Your task to perform on an android device: Go to Android settings Image 0: 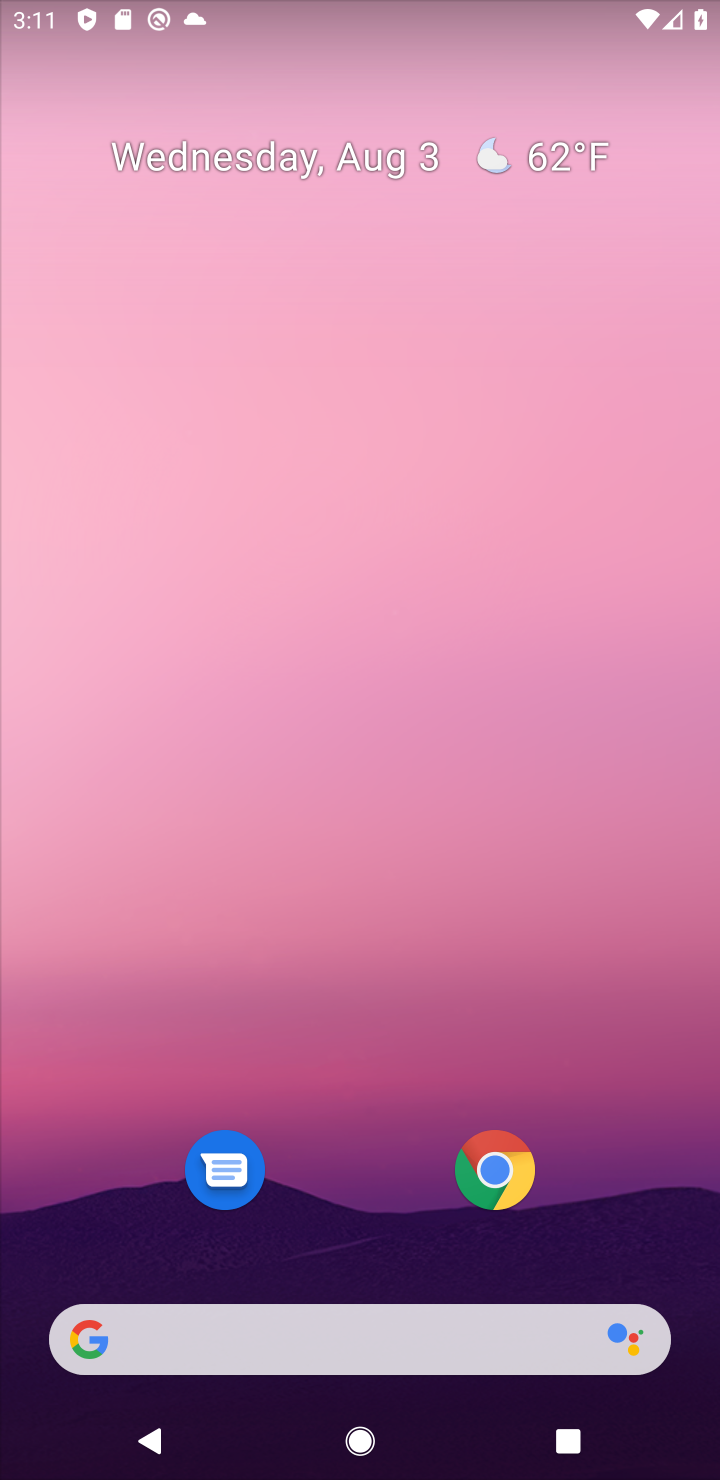
Step 0: drag from (285, 307) to (285, 127)
Your task to perform on an android device: Go to Android settings Image 1: 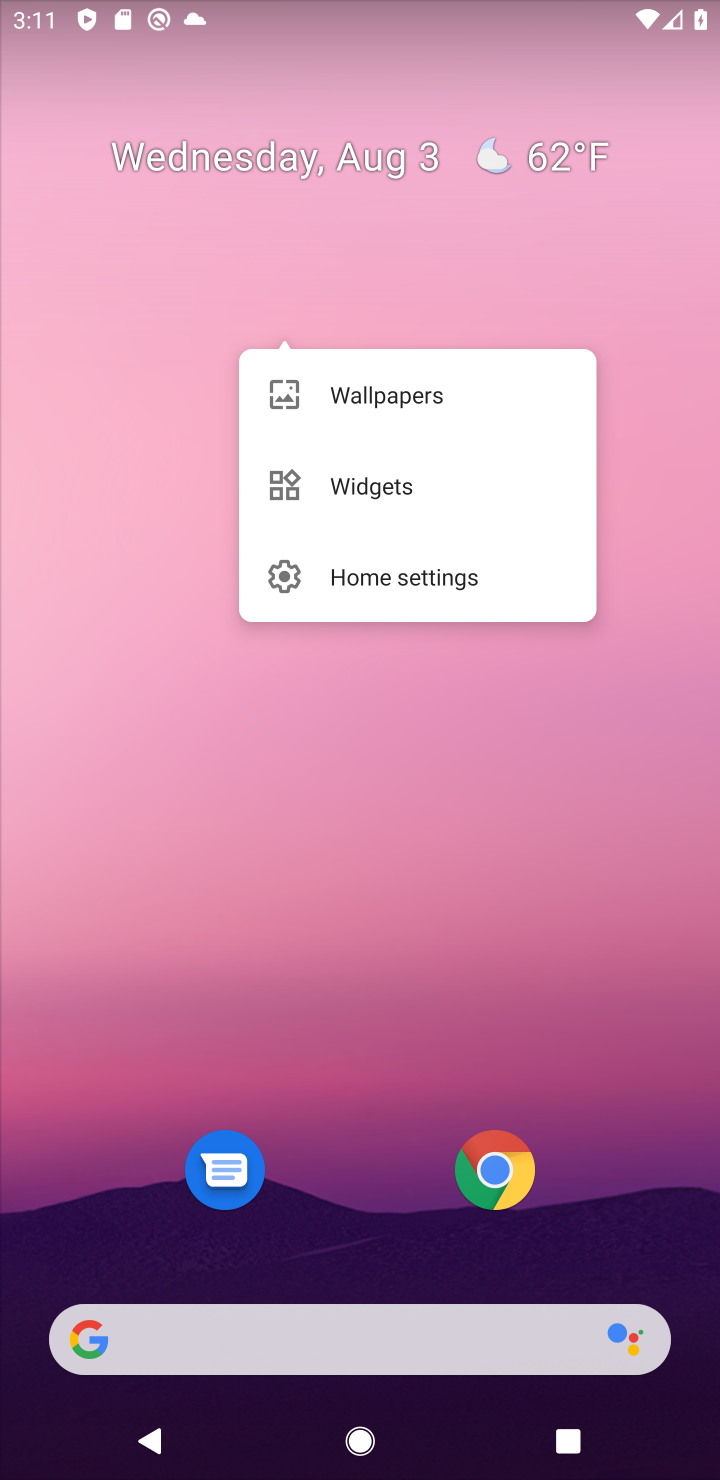
Step 1: drag from (301, 765) to (295, 202)
Your task to perform on an android device: Go to Android settings Image 2: 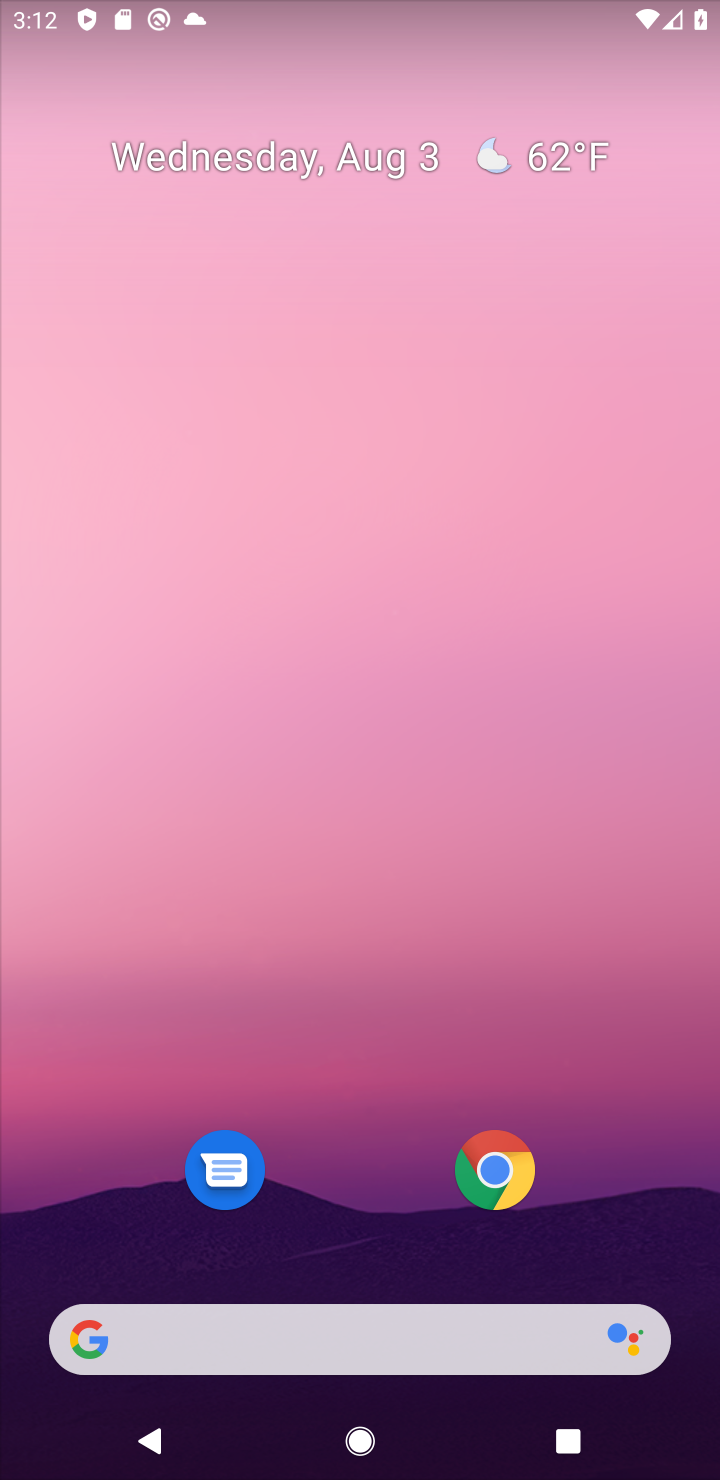
Step 2: drag from (342, 836) to (342, 18)
Your task to perform on an android device: Go to Android settings Image 3: 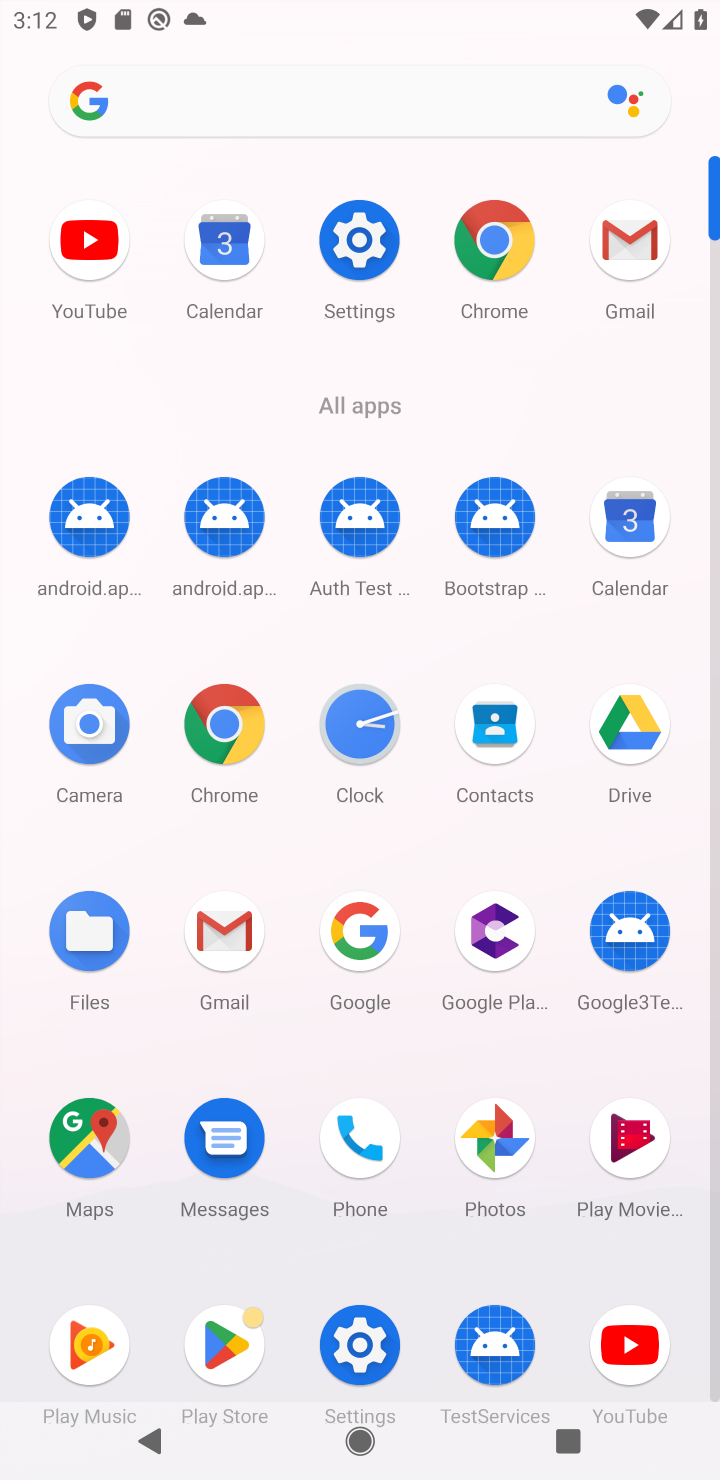
Step 3: click (368, 486)
Your task to perform on an android device: Go to Android settings Image 4: 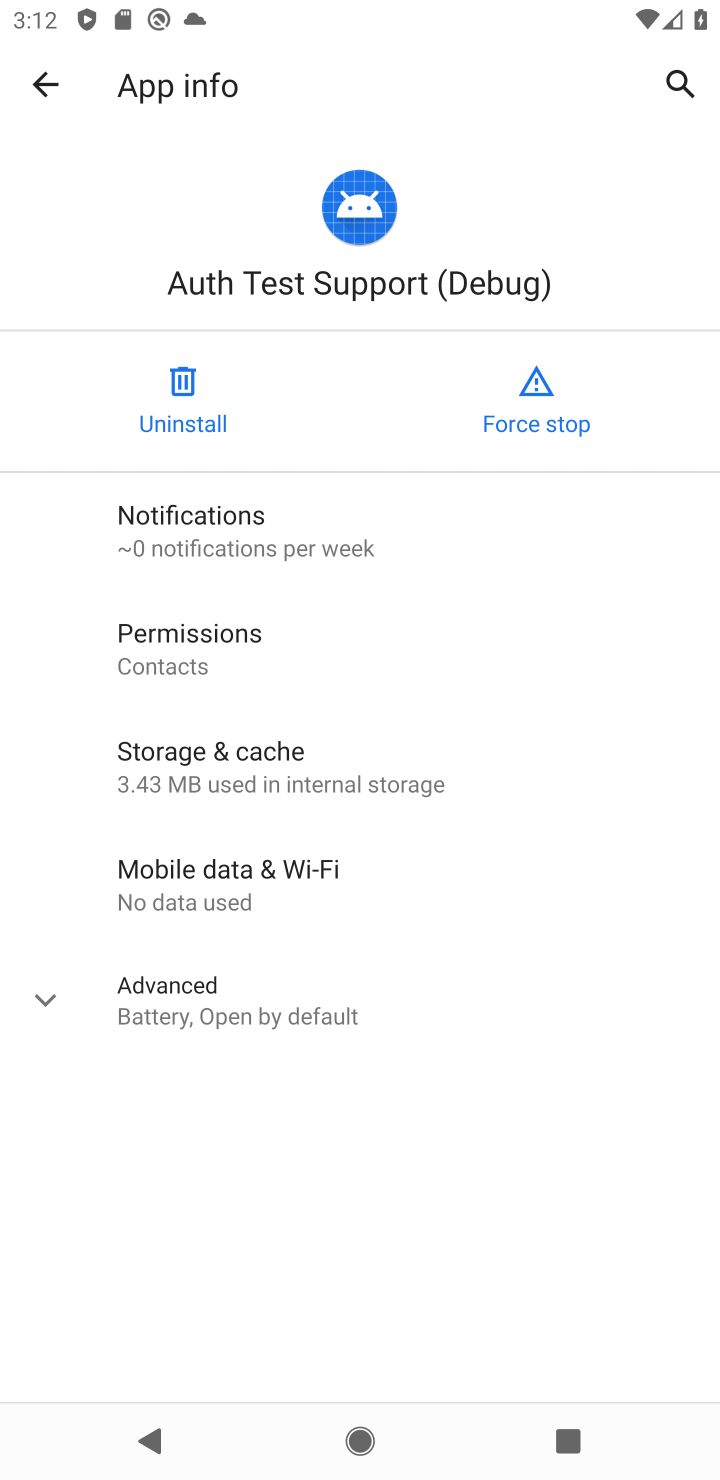
Step 4: click (351, 274)
Your task to perform on an android device: Go to Android settings Image 5: 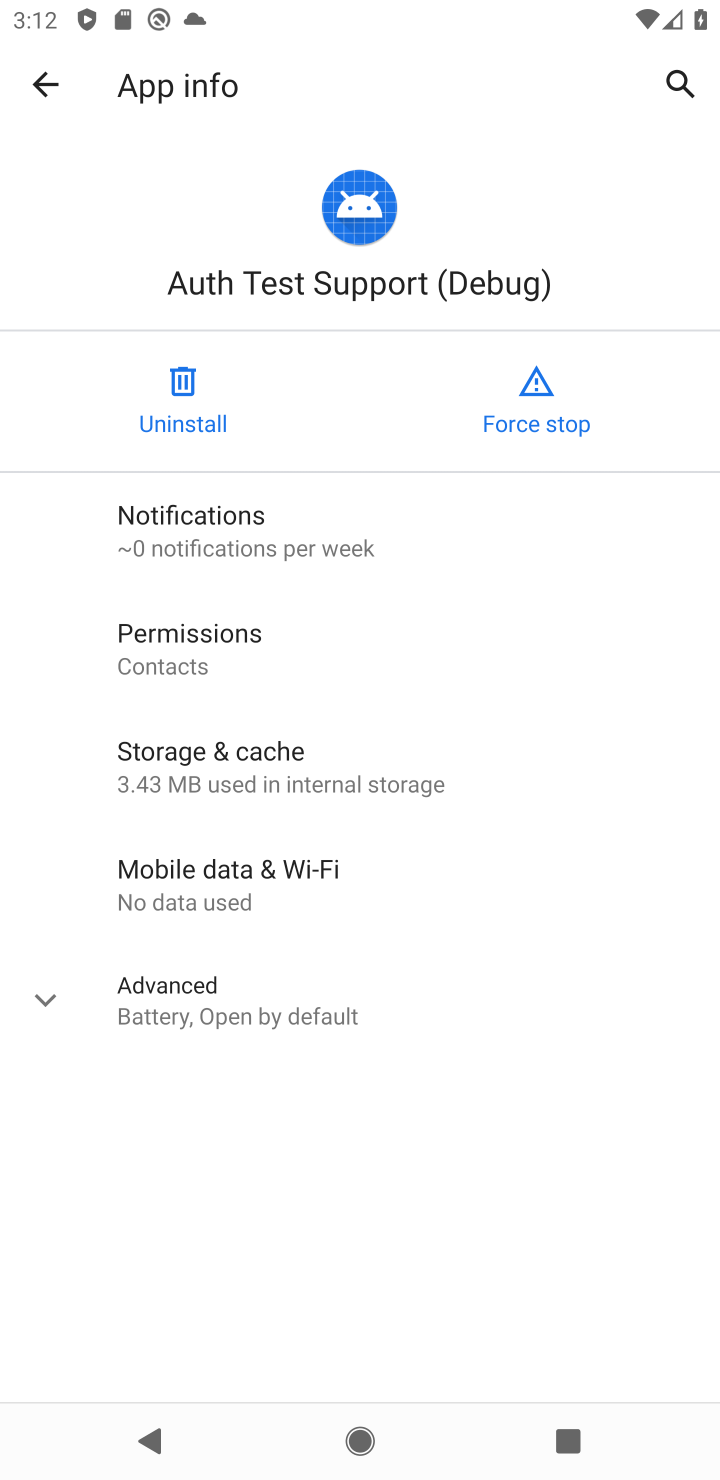
Step 5: click (48, 83)
Your task to perform on an android device: Go to Android settings Image 6: 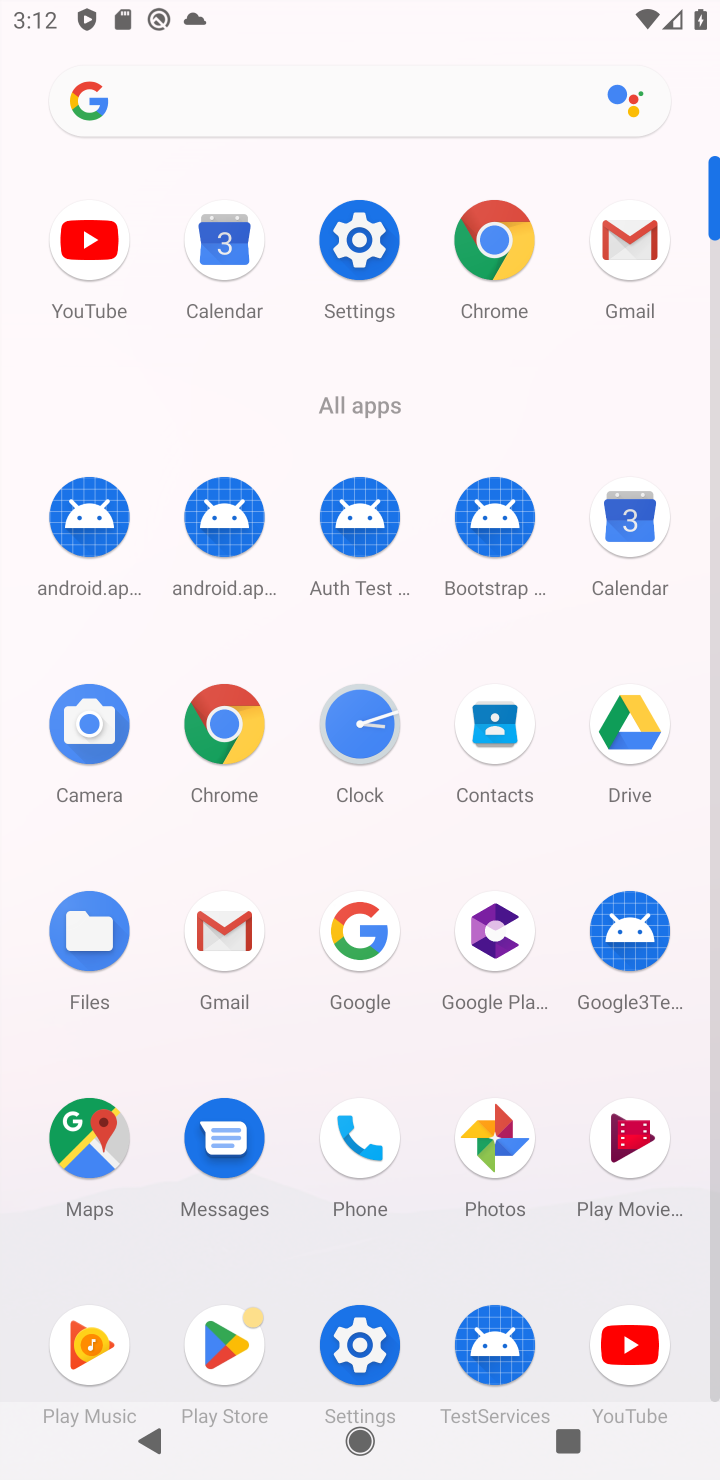
Step 6: click (356, 1329)
Your task to perform on an android device: Go to Android settings Image 7: 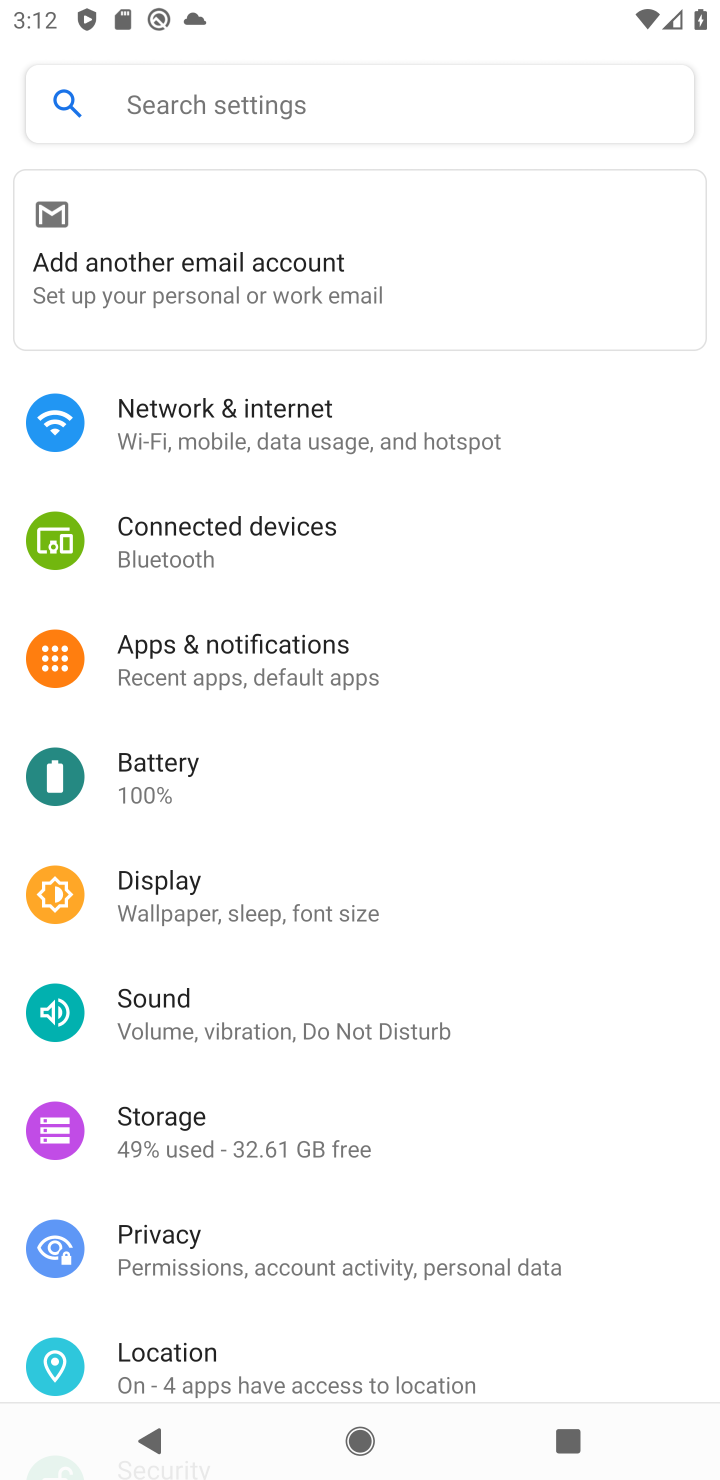
Step 7: drag from (315, 1253) to (255, 675)
Your task to perform on an android device: Go to Android settings Image 8: 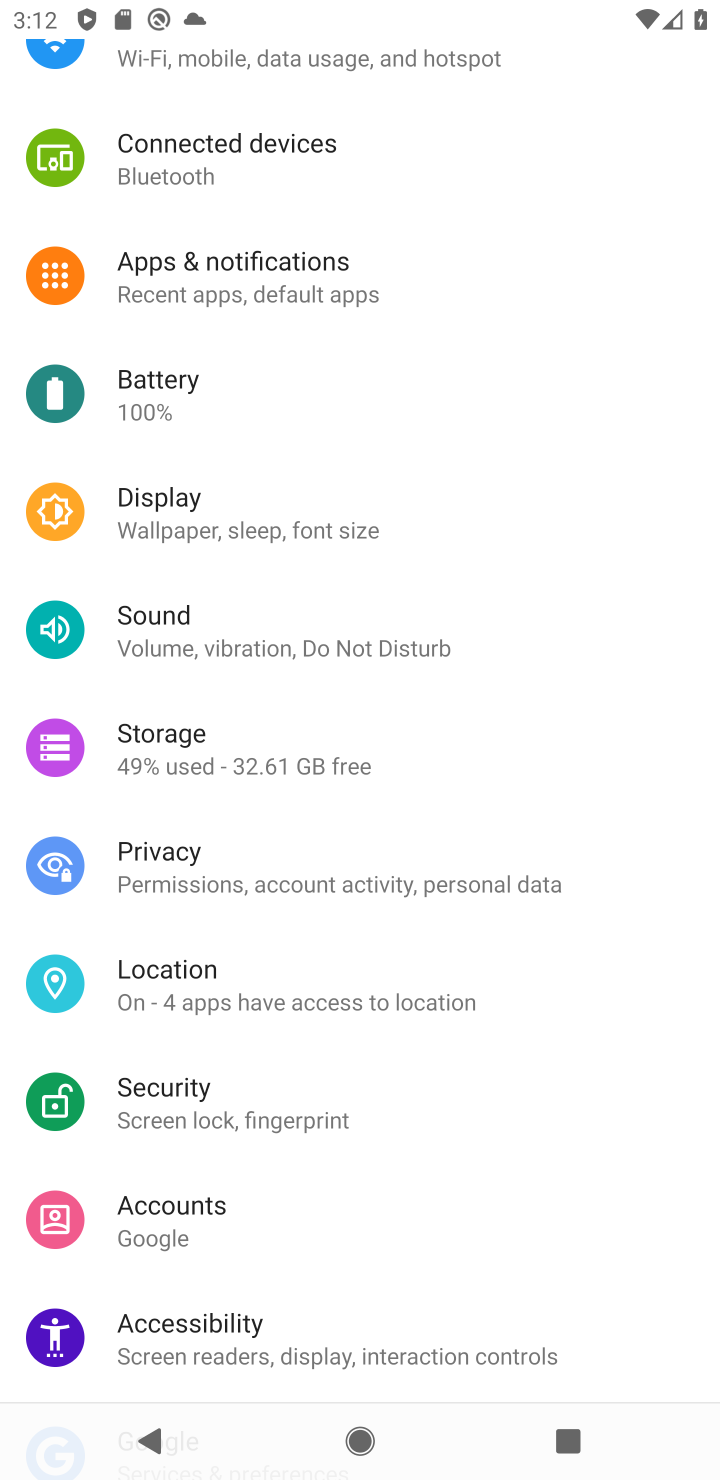
Step 8: drag from (179, 1032) to (179, 774)
Your task to perform on an android device: Go to Android settings Image 9: 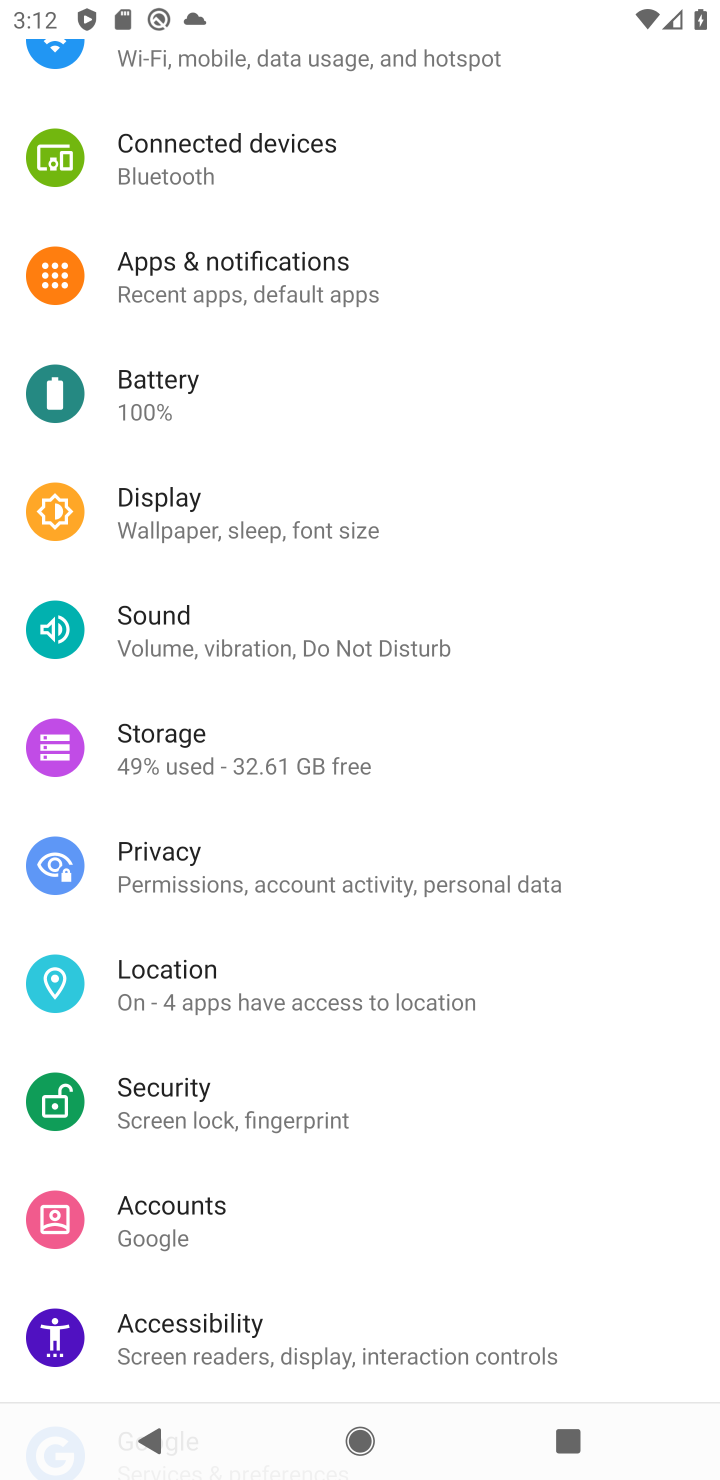
Step 9: click (226, 854)
Your task to perform on an android device: Go to Android settings Image 10: 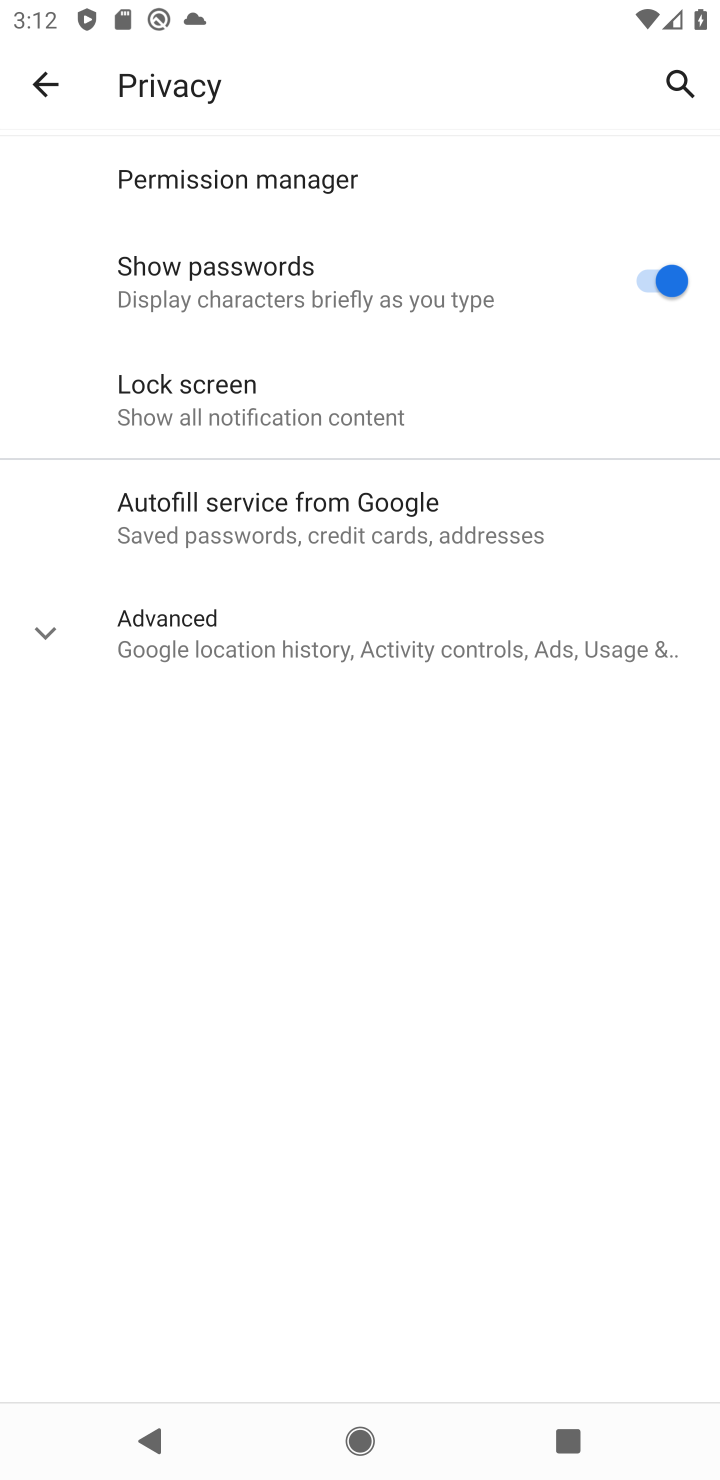
Step 10: drag from (308, 1265) to (294, 695)
Your task to perform on an android device: Go to Android settings Image 11: 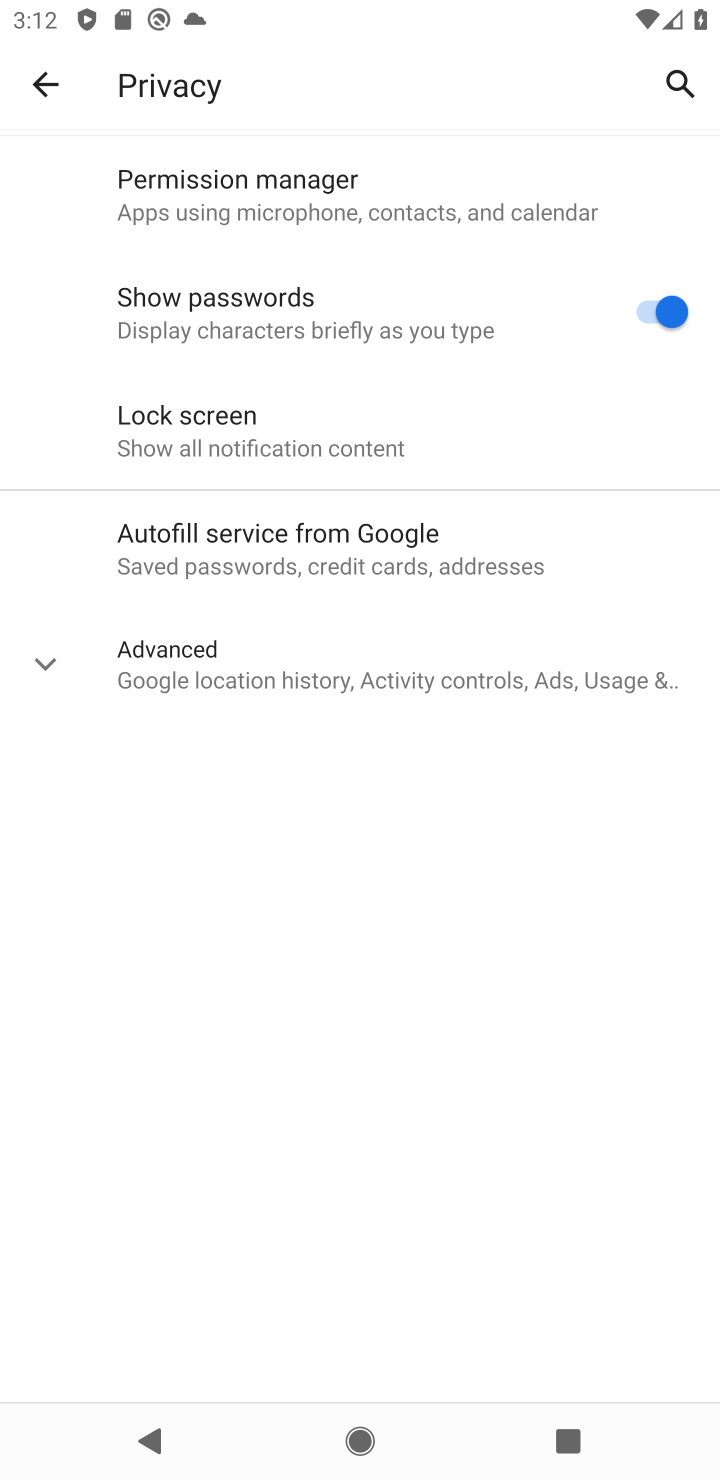
Step 11: click (59, 88)
Your task to perform on an android device: Go to Android settings Image 12: 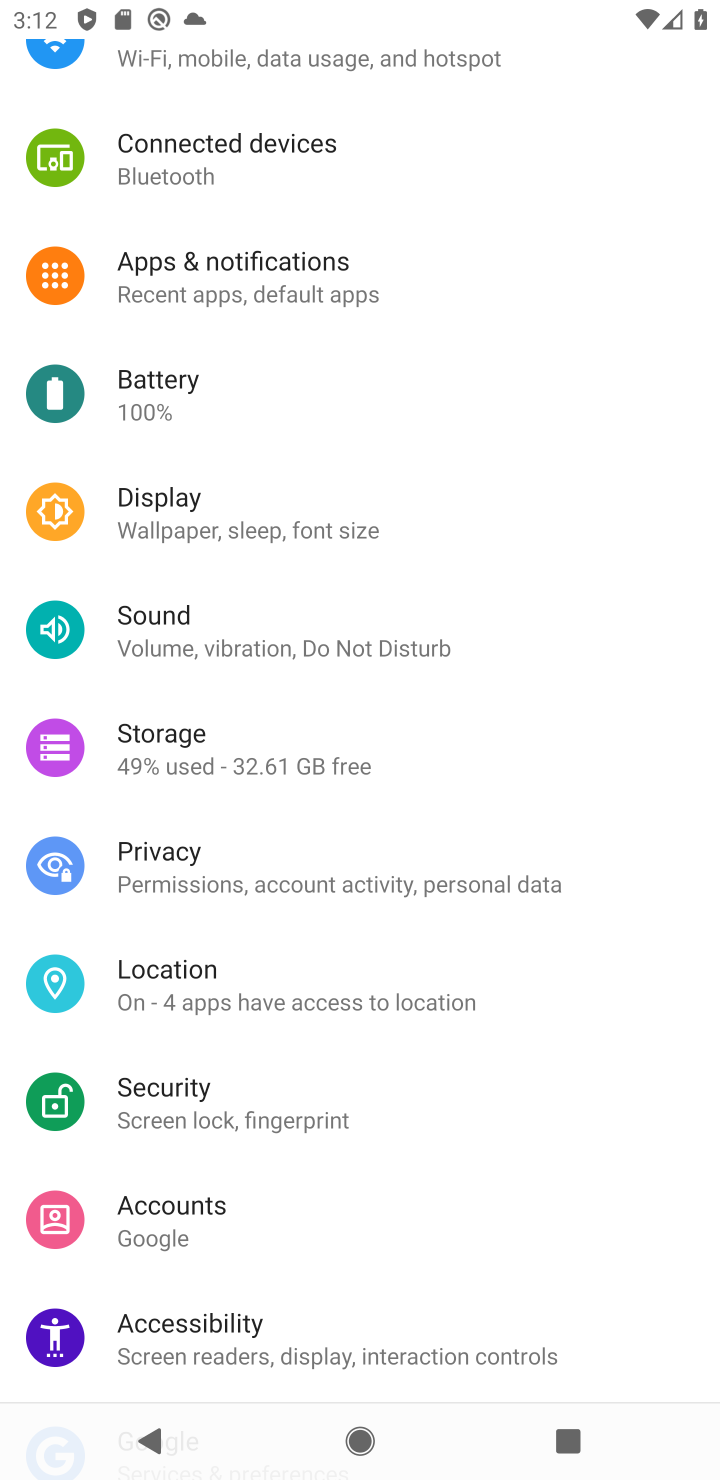
Step 12: drag from (192, 1153) to (201, 439)
Your task to perform on an android device: Go to Android settings Image 13: 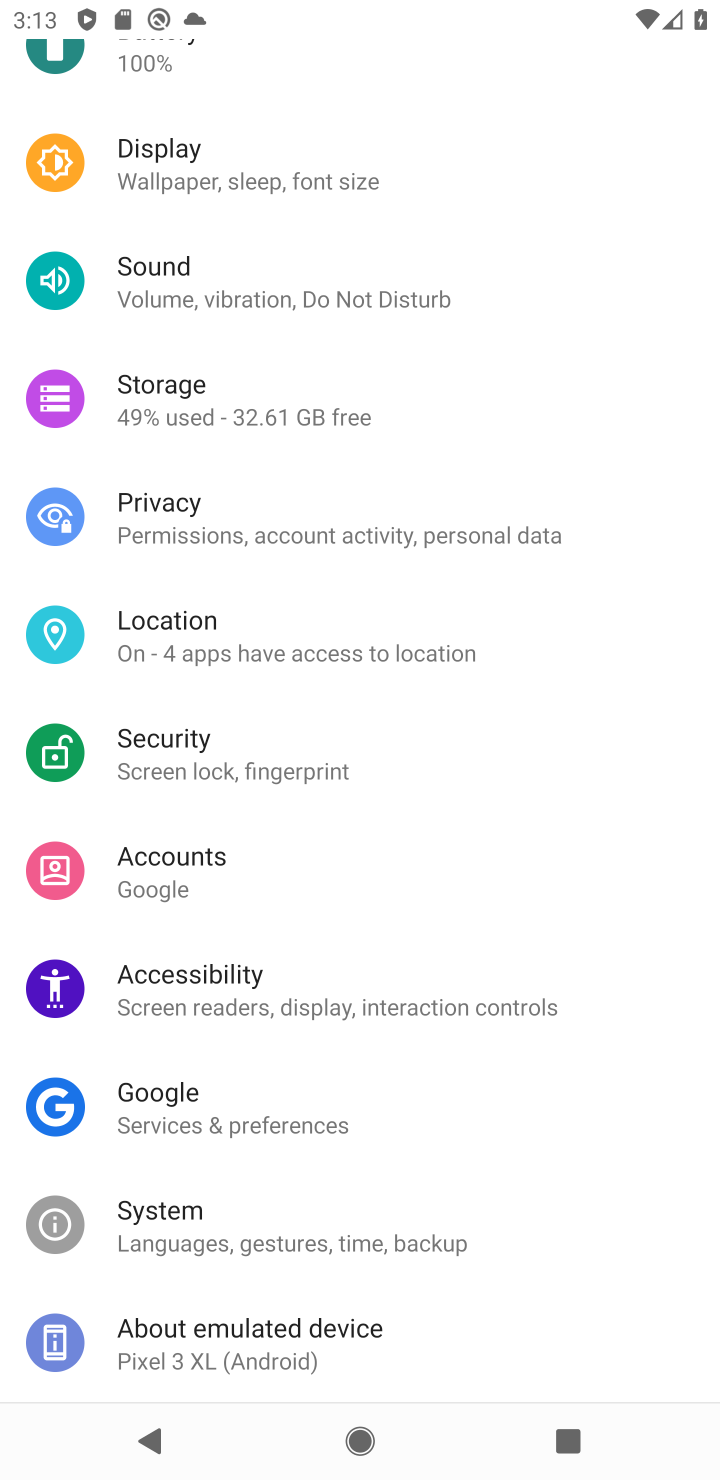
Step 13: click (232, 1323)
Your task to perform on an android device: Go to Android settings Image 14: 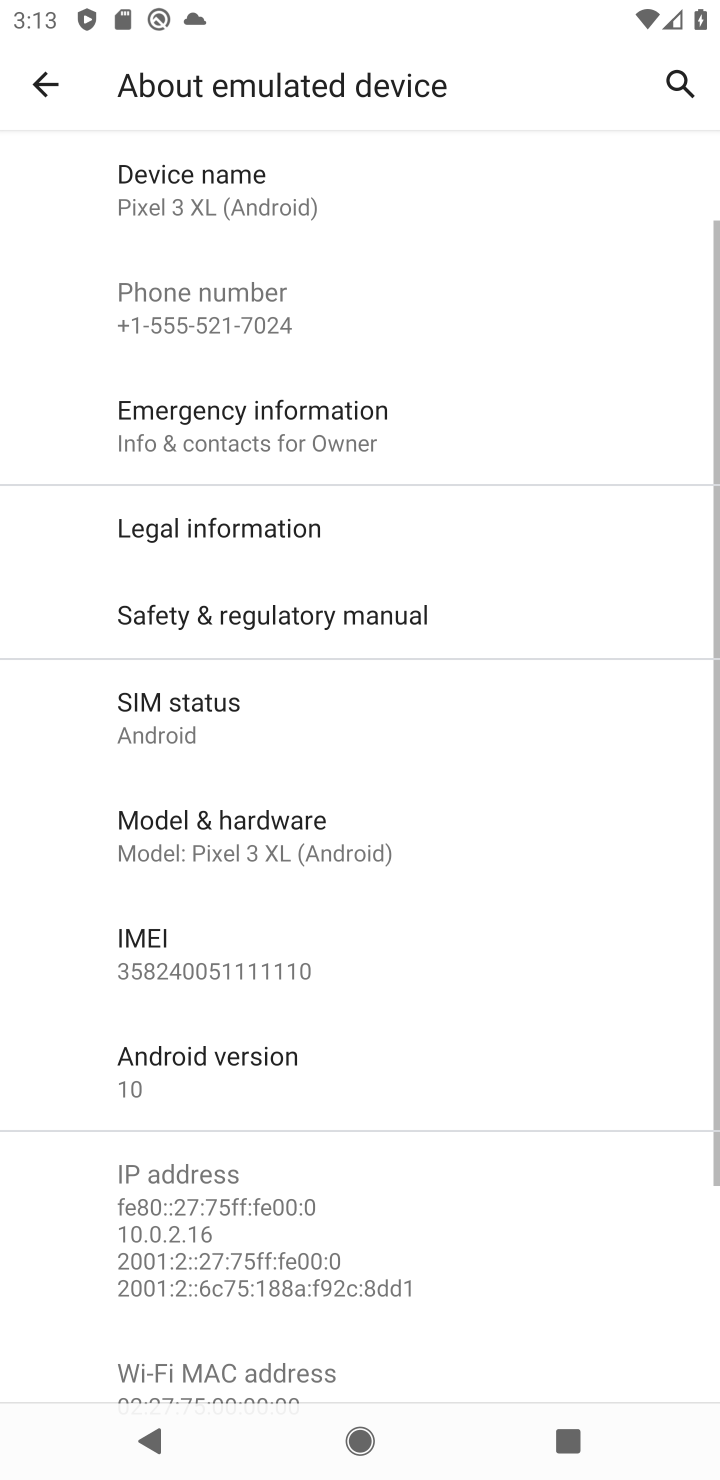
Step 14: click (243, 1109)
Your task to perform on an android device: Go to Android settings Image 15: 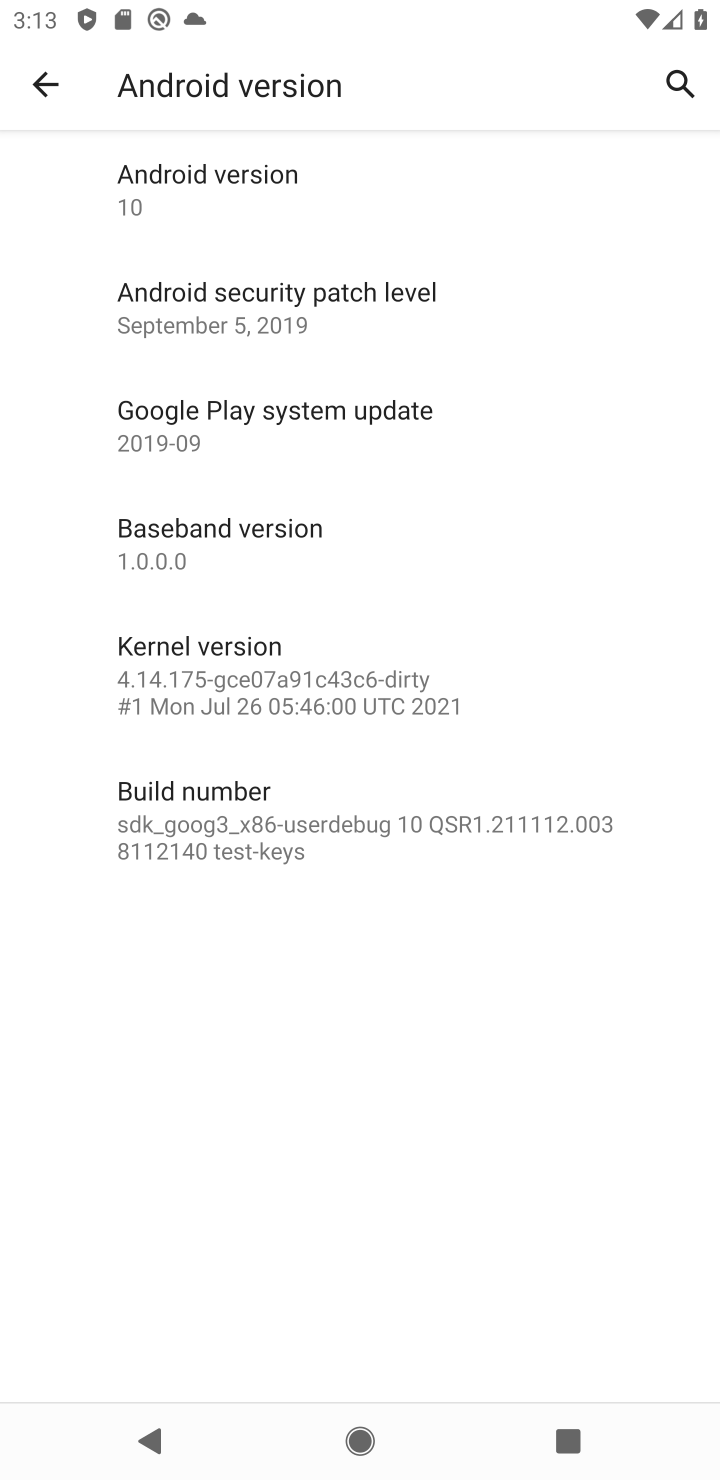
Step 15: task complete